Your task to perform on an android device: turn on airplane mode Image 0: 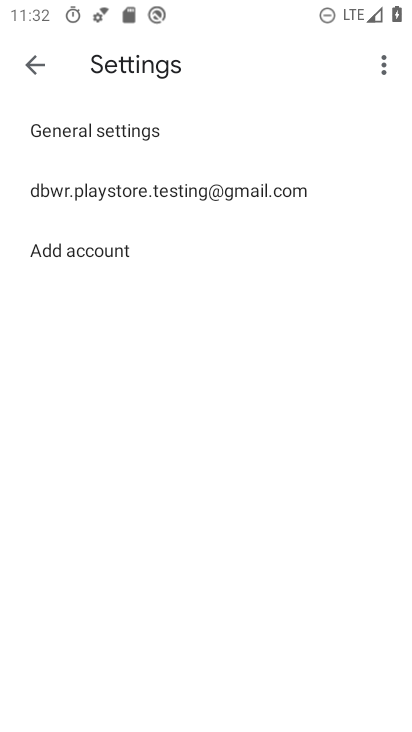
Step 0: click (233, 553)
Your task to perform on an android device: turn on airplane mode Image 1: 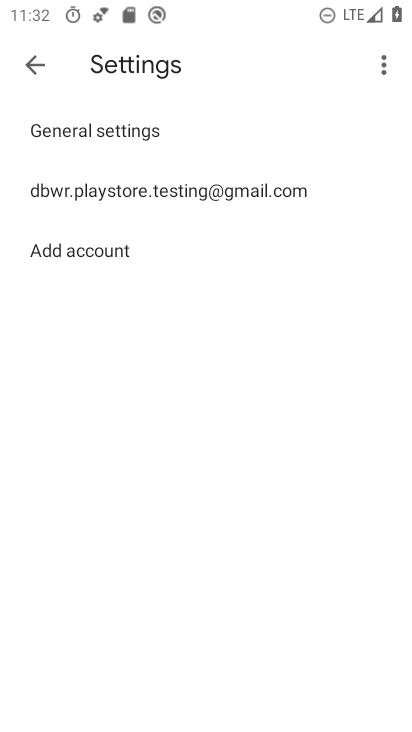
Step 1: press home button
Your task to perform on an android device: turn on airplane mode Image 2: 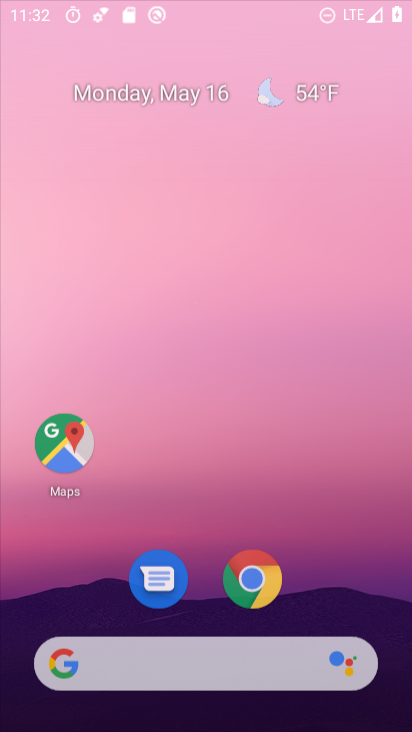
Step 2: drag from (194, 636) to (216, 233)
Your task to perform on an android device: turn on airplane mode Image 3: 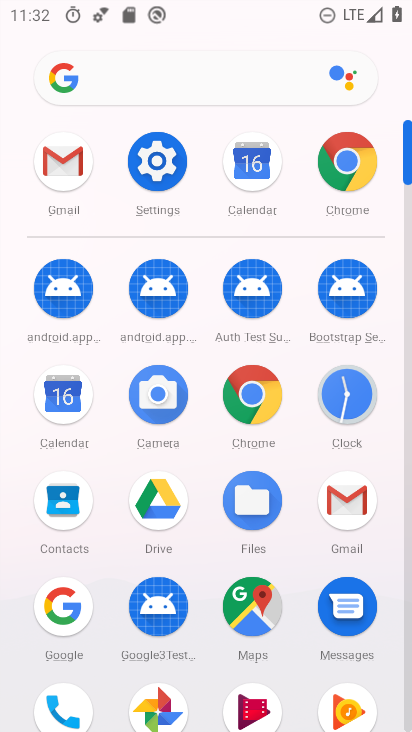
Step 3: click (147, 150)
Your task to perform on an android device: turn on airplane mode Image 4: 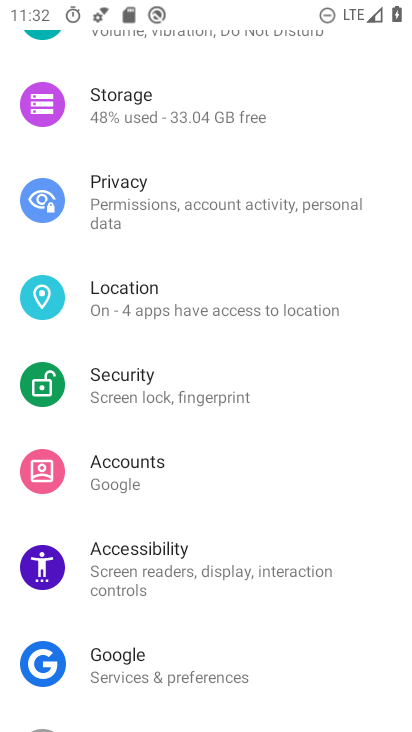
Step 4: drag from (225, 184) to (281, 717)
Your task to perform on an android device: turn on airplane mode Image 5: 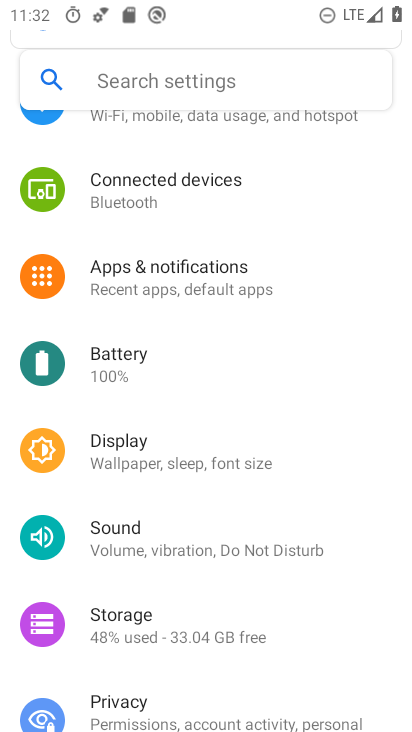
Step 5: drag from (216, 209) to (280, 723)
Your task to perform on an android device: turn on airplane mode Image 6: 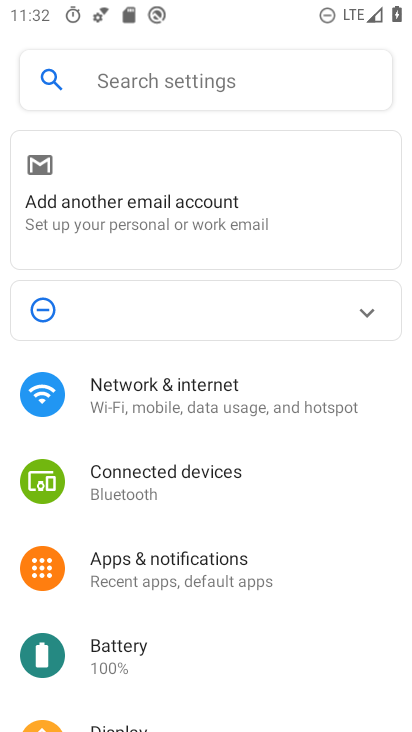
Step 6: click (196, 400)
Your task to perform on an android device: turn on airplane mode Image 7: 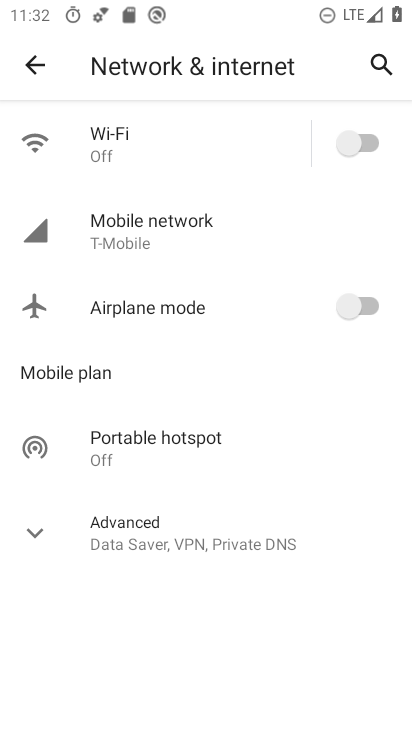
Step 7: click (193, 313)
Your task to perform on an android device: turn on airplane mode Image 8: 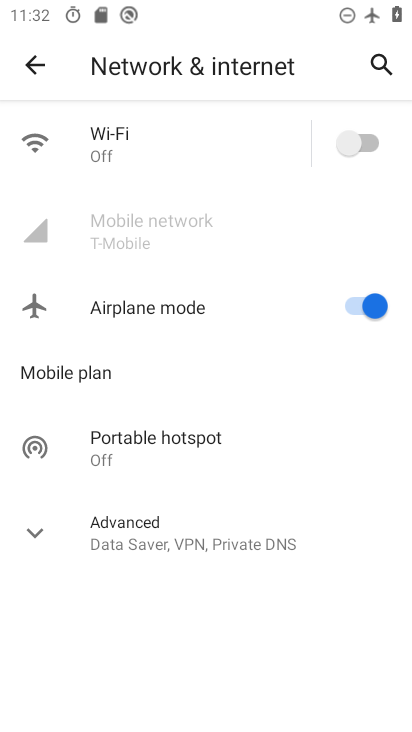
Step 8: task complete